Your task to perform on an android device: Open Google Image 0: 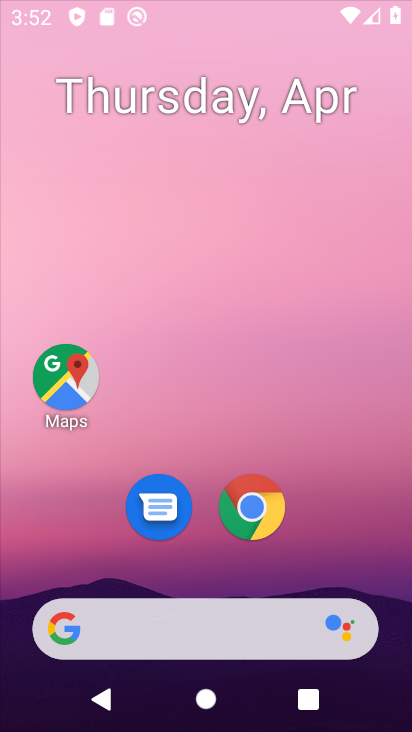
Step 0: drag from (322, 575) to (132, 128)
Your task to perform on an android device: Open Google Image 1: 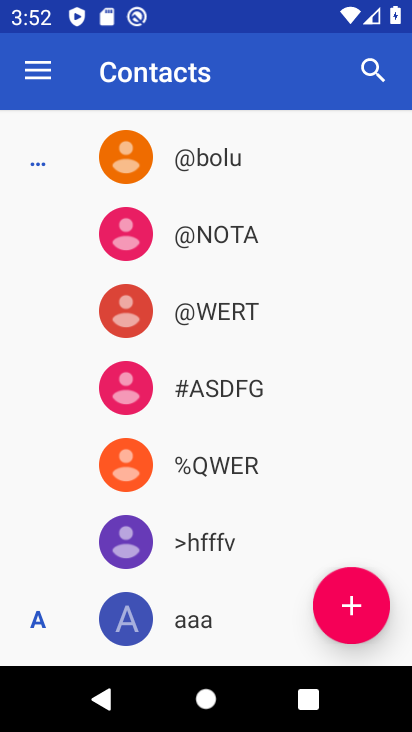
Step 1: press home button
Your task to perform on an android device: Open Google Image 2: 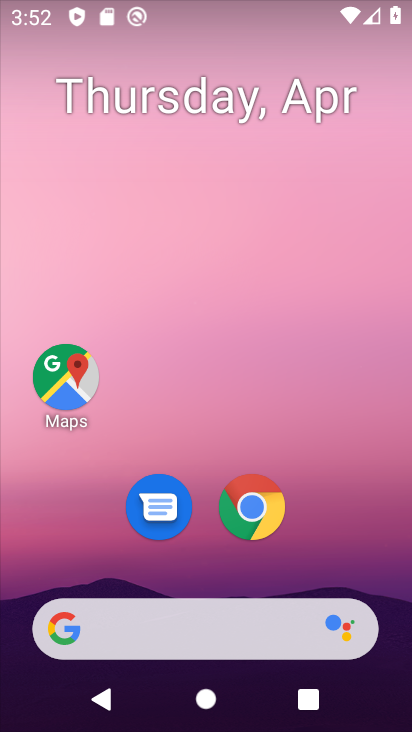
Step 2: drag from (306, 574) to (236, 185)
Your task to perform on an android device: Open Google Image 3: 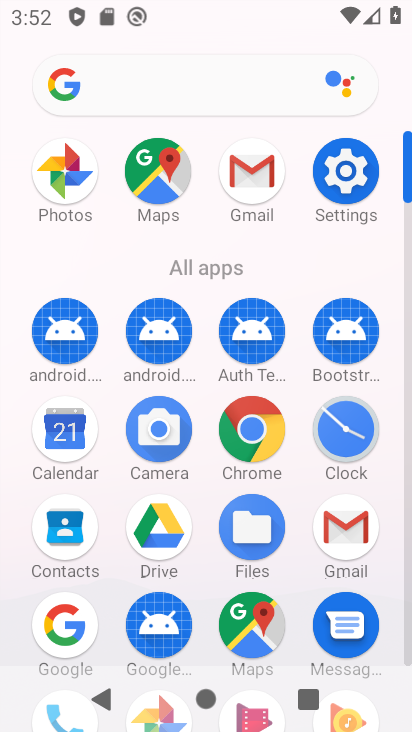
Step 3: click (60, 622)
Your task to perform on an android device: Open Google Image 4: 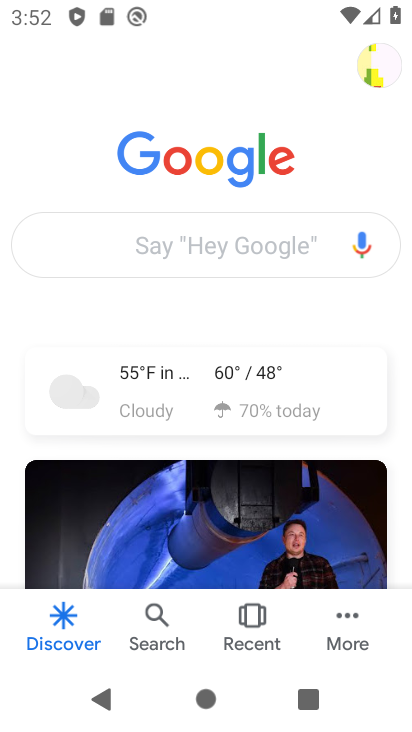
Step 4: task complete